Your task to perform on an android device: Search for seafood restaurants on Google Maps Image 0: 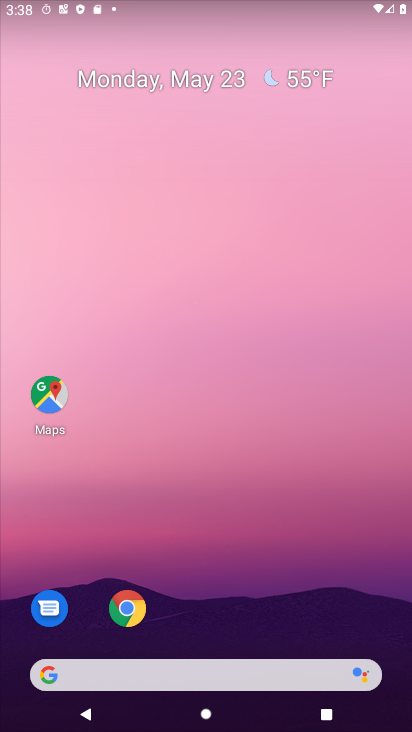
Step 0: click (57, 391)
Your task to perform on an android device: Search for seafood restaurants on Google Maps Image 1: 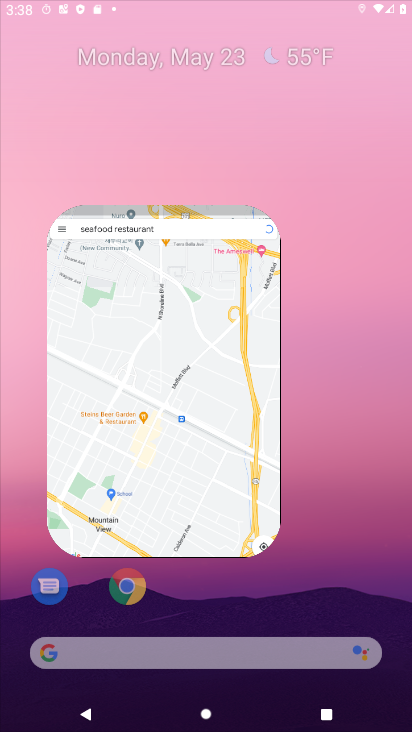
Step 1: click (53, 399)
Your task to perform on an android device: Search for seafood restaurants on Google Maps Image 2: 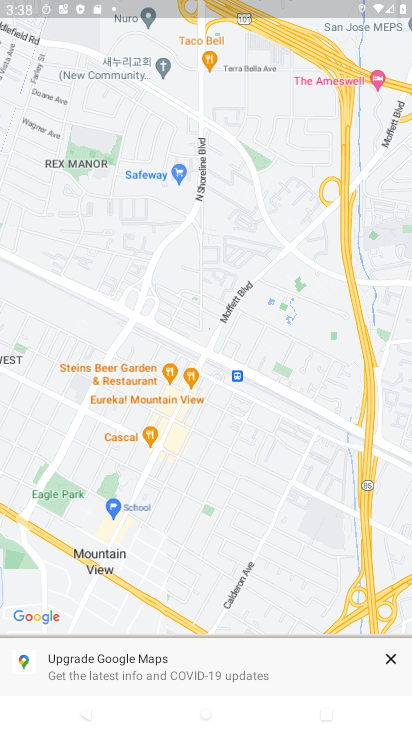
Step 2: click (197, 39)
Your task to perform on an android device: Search for seafood restaurants on Google Maps Image 3: 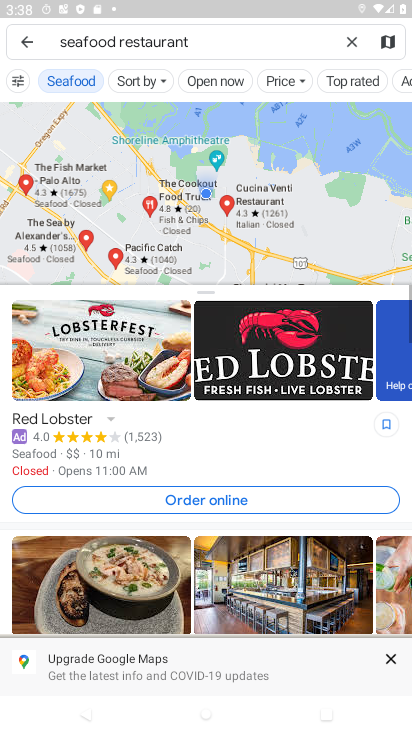
Step 3: task complete